Your task to perform on an android device: Check the news Image 0: 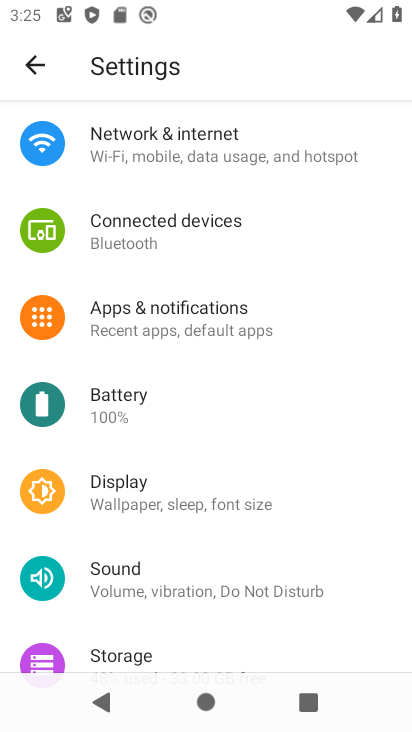
Step 0: press home button
Your task to perform on an android device: Check the news Image 1: 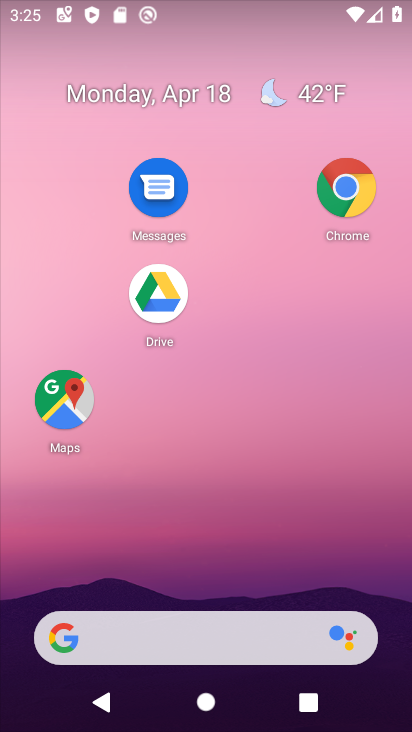
Step 1: drag from (269, 517) to (218, 137)
Your task to perform on an android device: Check the news Image 2: 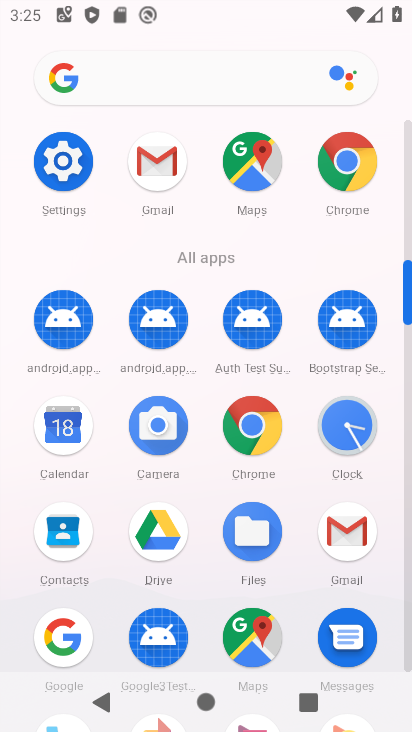
Step 2: drag from (102, 535) to (118, 350)
Your task to perform on an android device: Check the news Image 3: 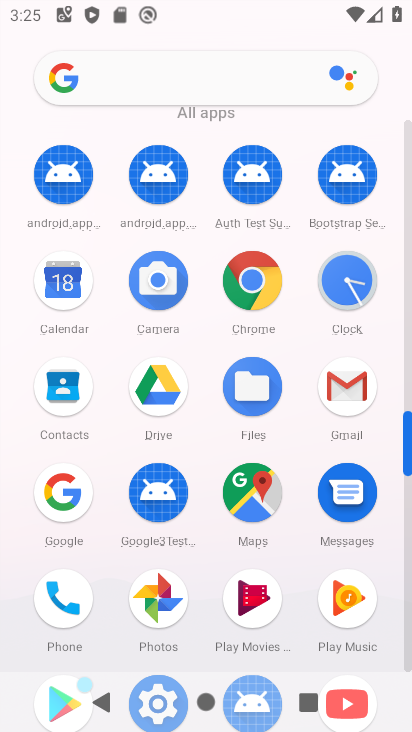
Step 3: click (58, 499)
Your task to perform on an android device: Check the news Image 4: 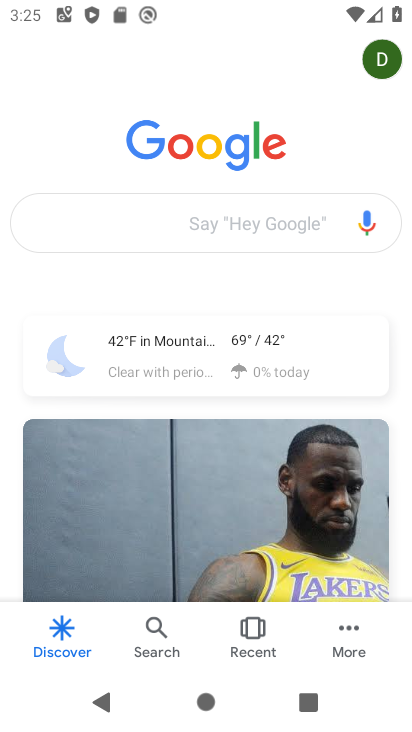
Step 4: drag from (284, 299) to (308, 138)
Your task to perform on an android device: Check the news Image 5: 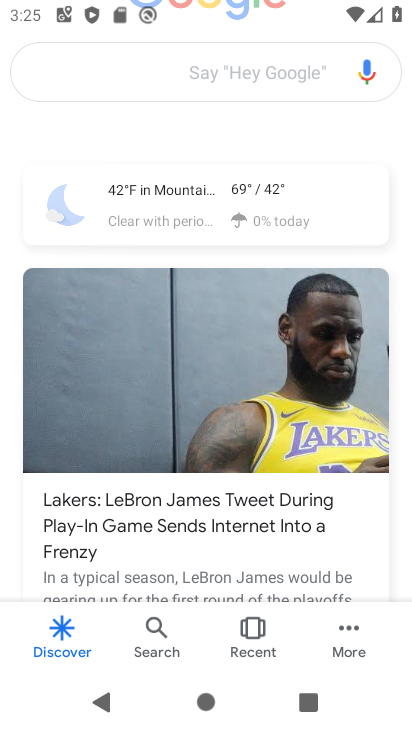
Step 5: drag from (228, 454) to (230, 314)
Your task to perform on an android device: Check the news Image 6: 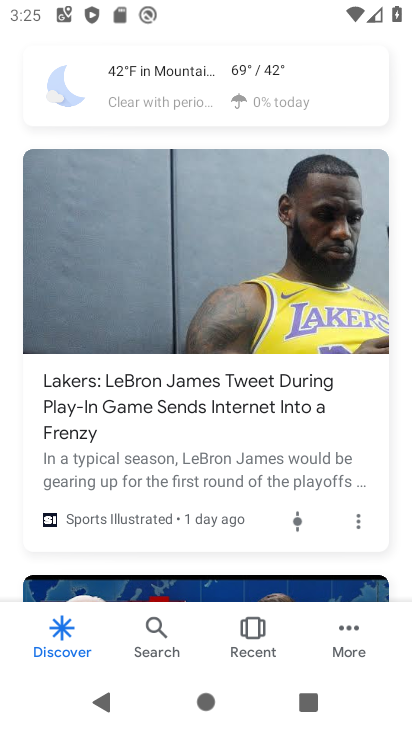
Step 6: click (206, 395)
Your task to perform on an android device: Check the news Image 7: 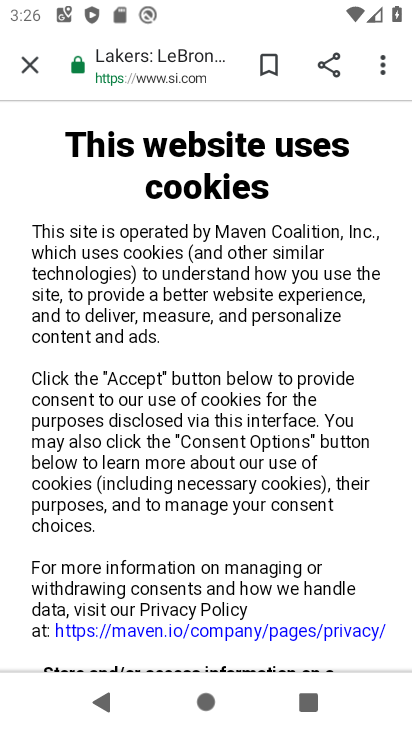
Step 7: task complete